Your task to perform on an android device: Open calendar and show me the first week of next month Image 0: 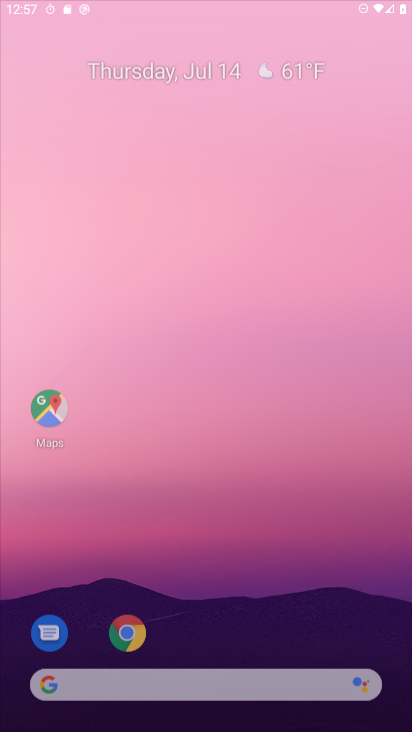
Step 0: drag from (274, 543) to (282, 8)
Your task to perform on an android device: Open calendar and show me the first week of next month Image 1: 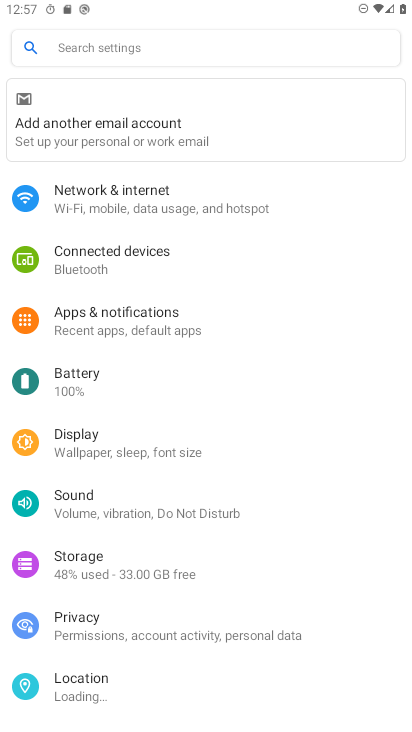
Step 1: press home button
Your task to perform on an android device: Open calendar and show me the first week of next month Image 2: 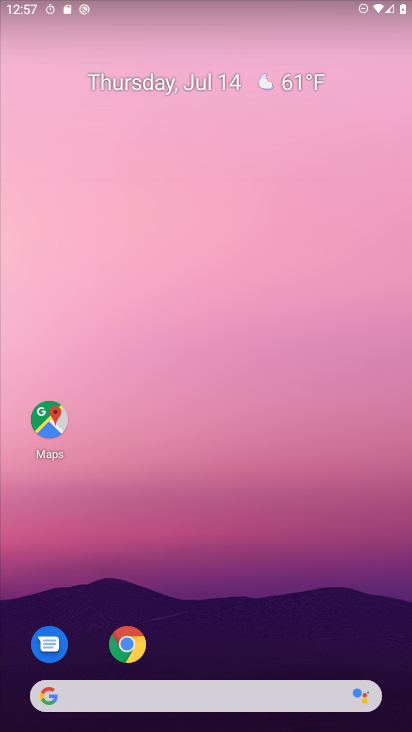
Step 2: drag from (322, 572) to (264, 64)
Your task to perform on an android device: Open calendar and show me the first week of next month Image 3: 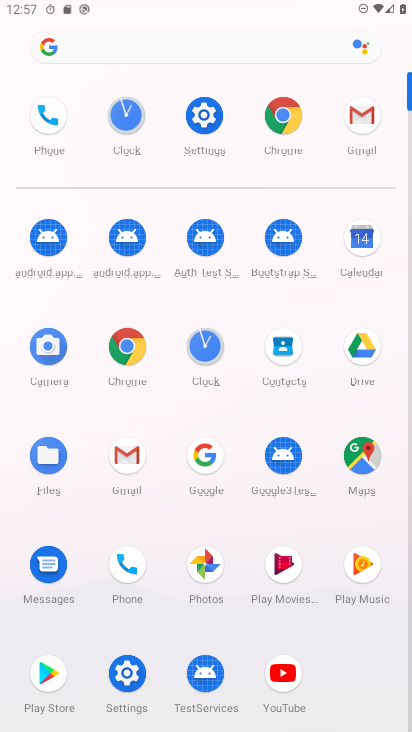
Step 3: click (370, 240)
Your task to perform on an android device: Open calendar and show me the first week of next month Image 4: 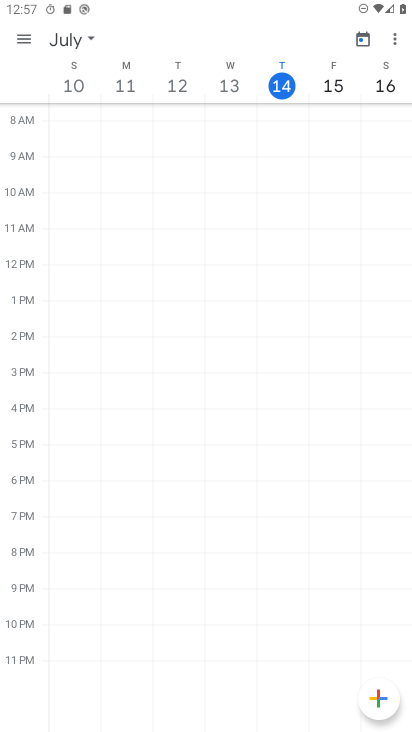
Step 4: click (81, 36)
Your task to perform on an android device: Open calendar and show me the first week of next month Image 5: 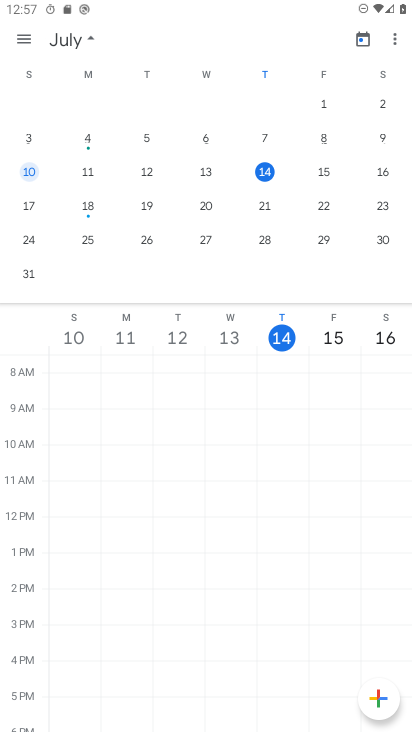
Step 5: drag from (389, 166) to (74, 153)
Your task to perform on an android device: Open calendar and show me the first week of next month Image 6: 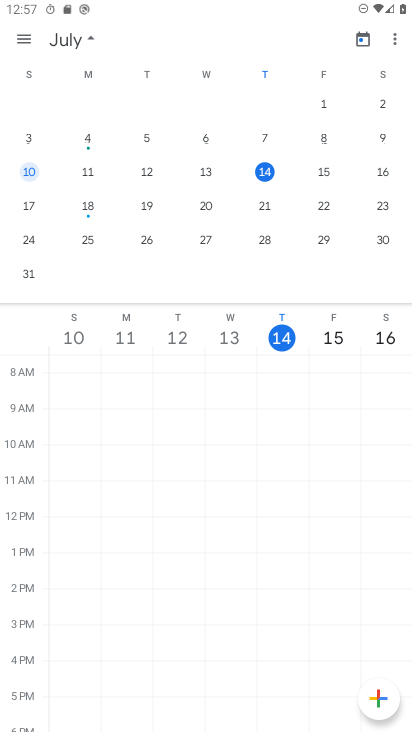
Step 6: drag from (388, 193) to (80, 186)
Your task to perform on an android device: Open calendar and show me the first week of next month Image 7: 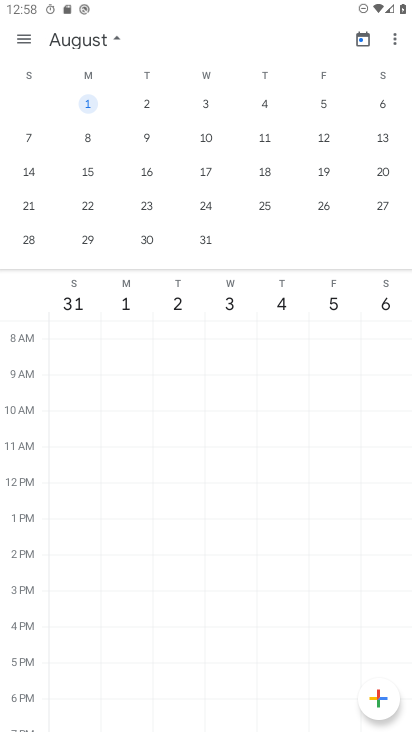
Step 7: click (263, 99)
Your task to perform on an android device: Open calendar and show me the first week of next month Image 8: 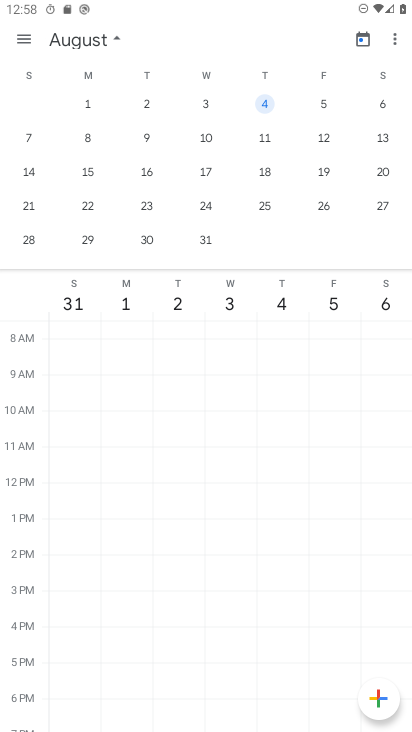
Step 8: task complete